Your task to perform on an android device: uninstall "DoorDash - Dasher" Image 0: 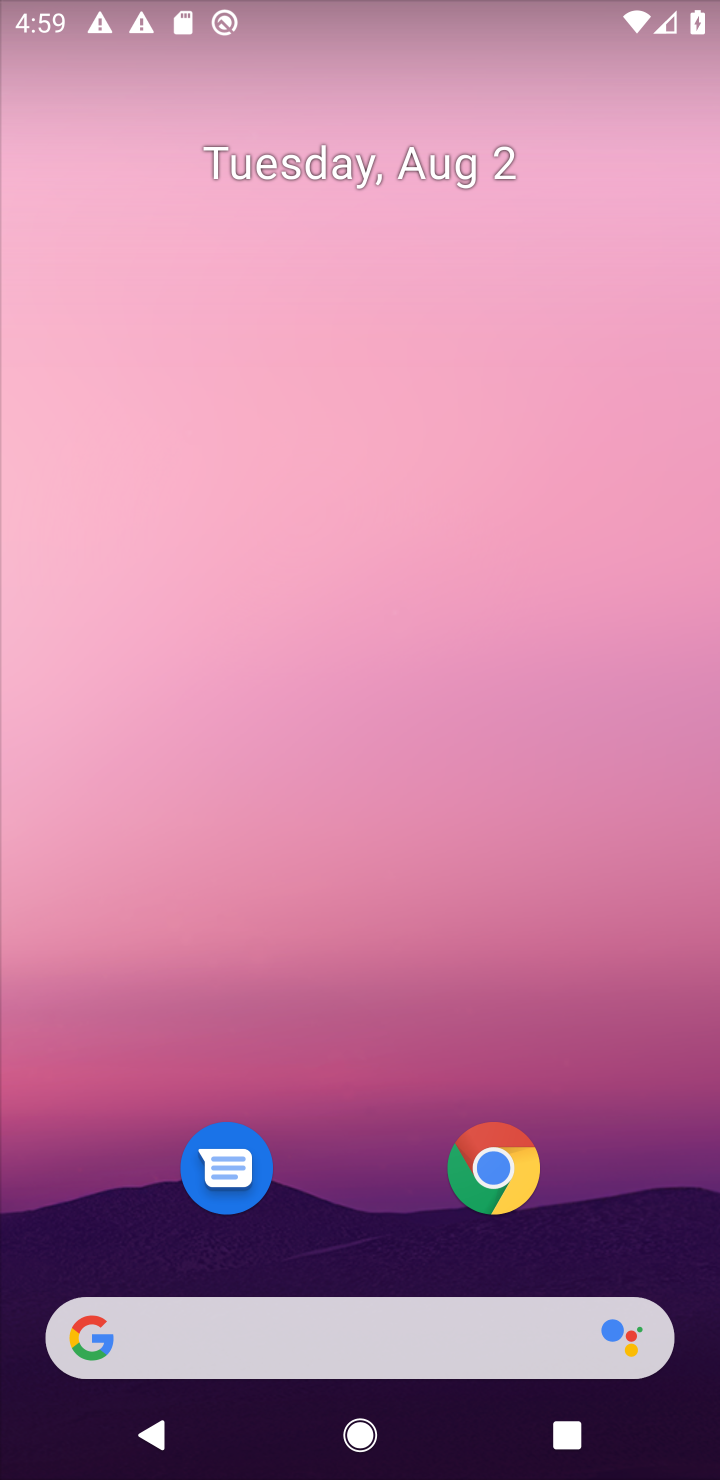
Step 0: drag from (348, 1163) to (389, 422)
Your task to perform on an android device: uninstall "DoorDash - Dasher" Image 1: 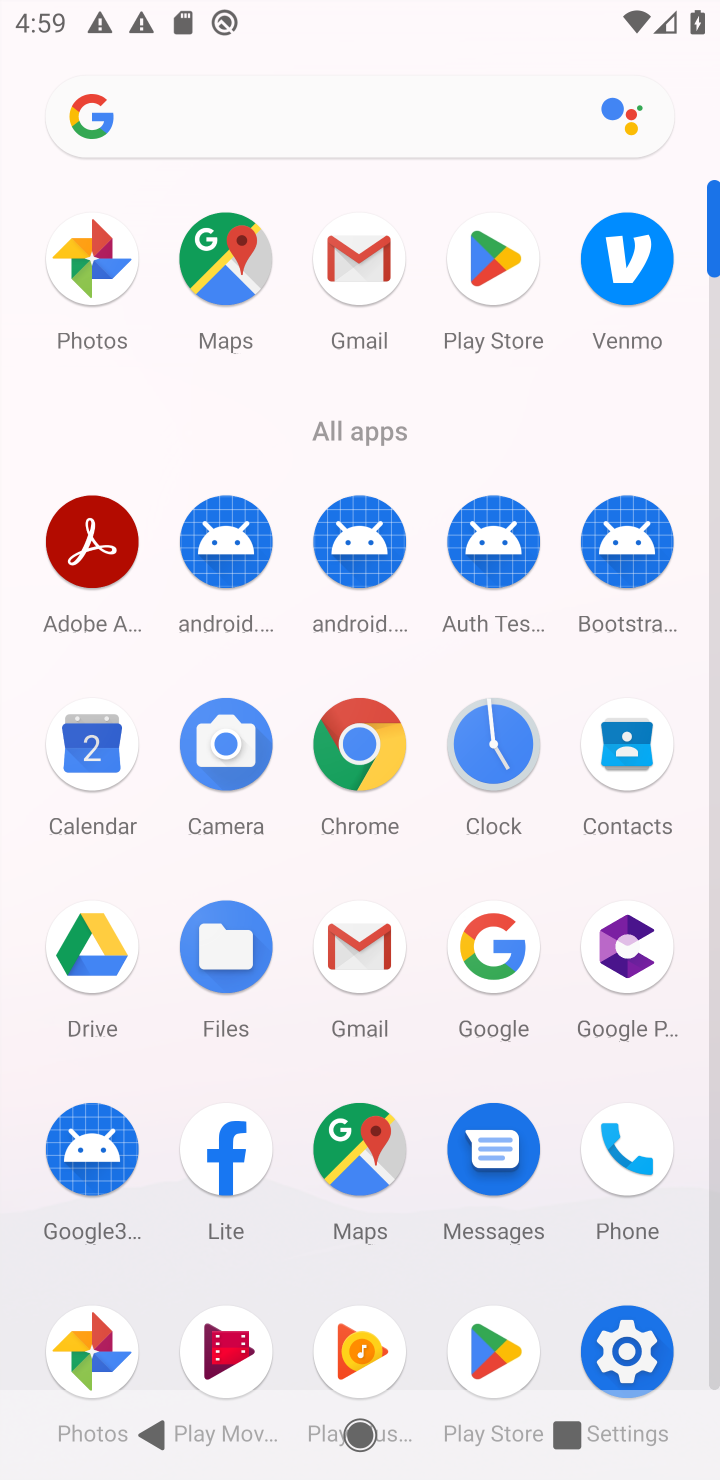
Step 1: click (499, 1346)
Your task to perform on an android device: uninstall "DoorDash - Dasher" Image 2: 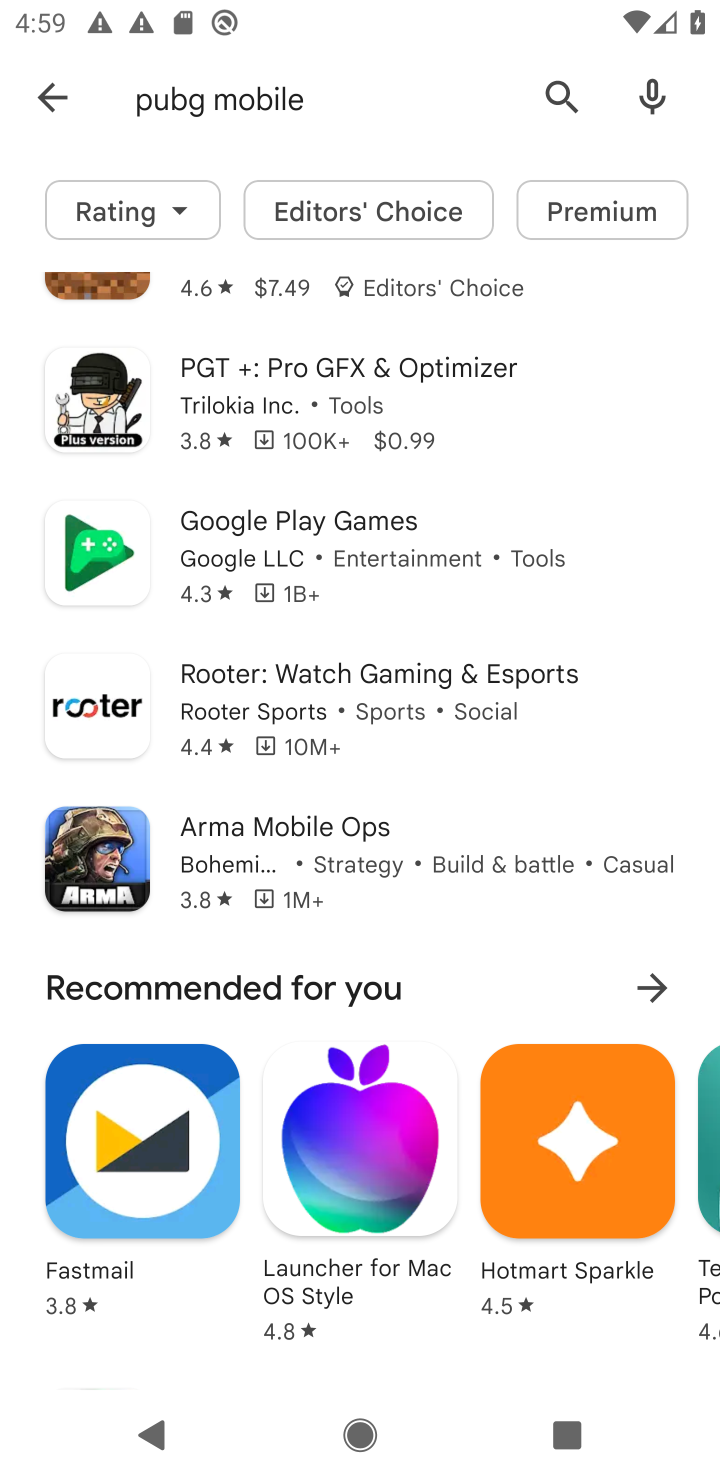
Step 2: click (267, 95)
Your task to perform on an android device: uninstall "DoorDash - Dasher" Image 3: 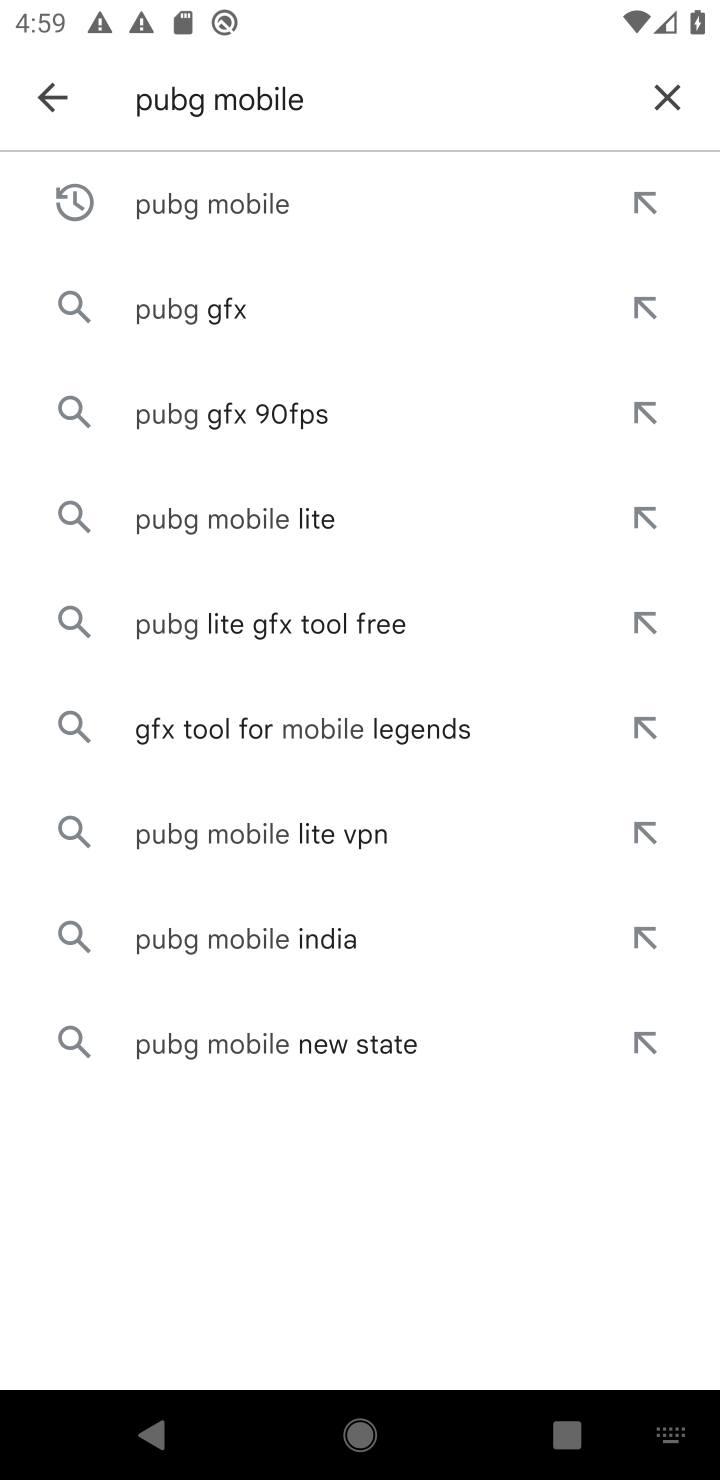
Step 3: click (649, 92)
Your task to perform on an android device: uninstall "DoorDash - Dasher" Image 4: 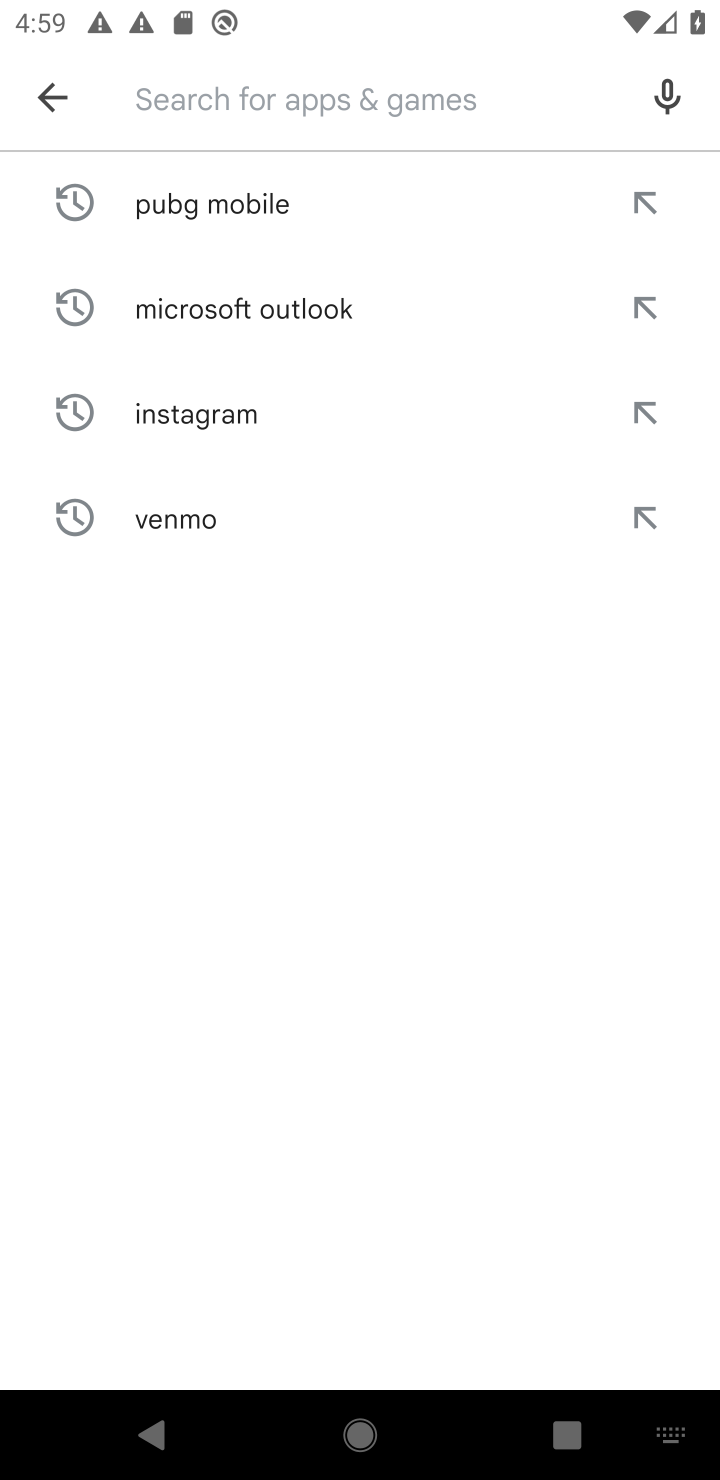
Step 4: type "doordash - dasher"
Your task to perform on an android device: uninstall "DoorDash - Dasher" Image 5: 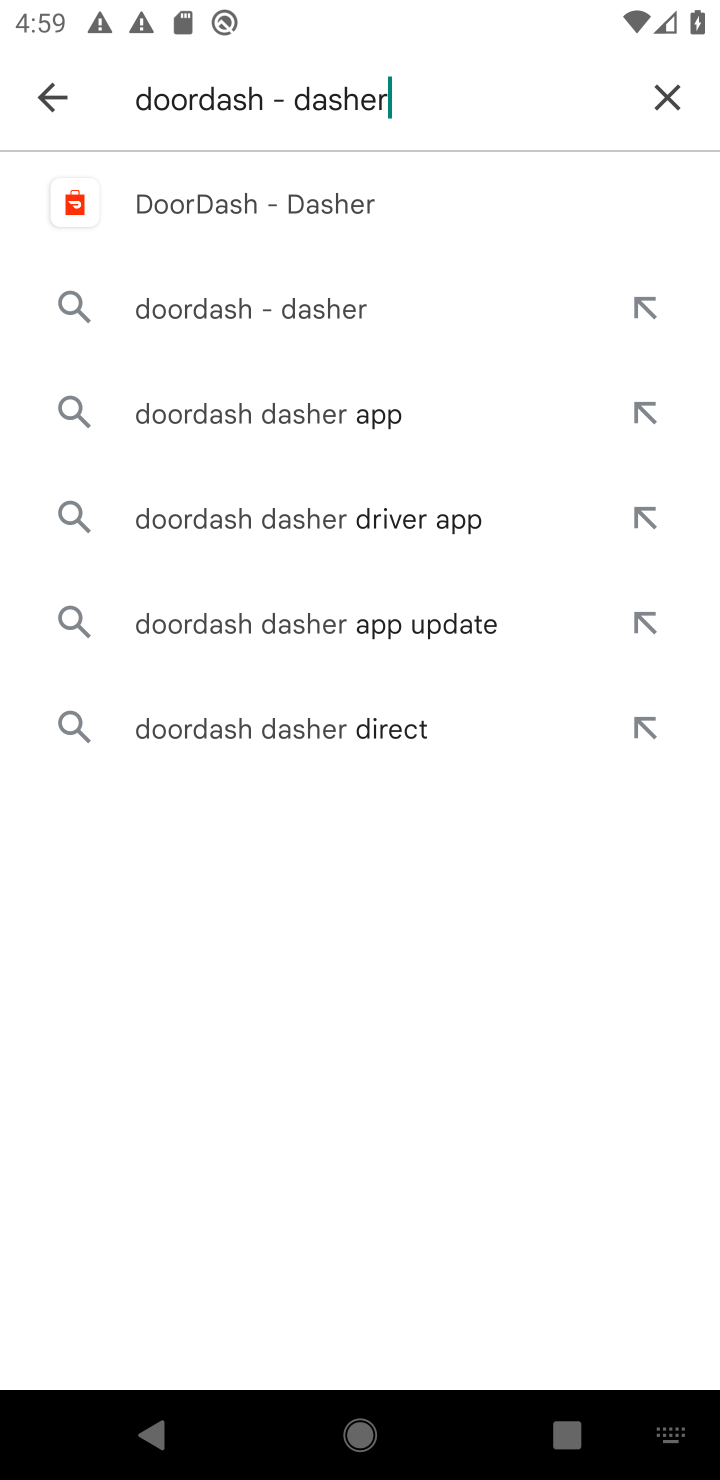
Step 5: click (349, 198)
Your task to perform on an android device: uninstall "DoorDash - Dasher" Image 6: 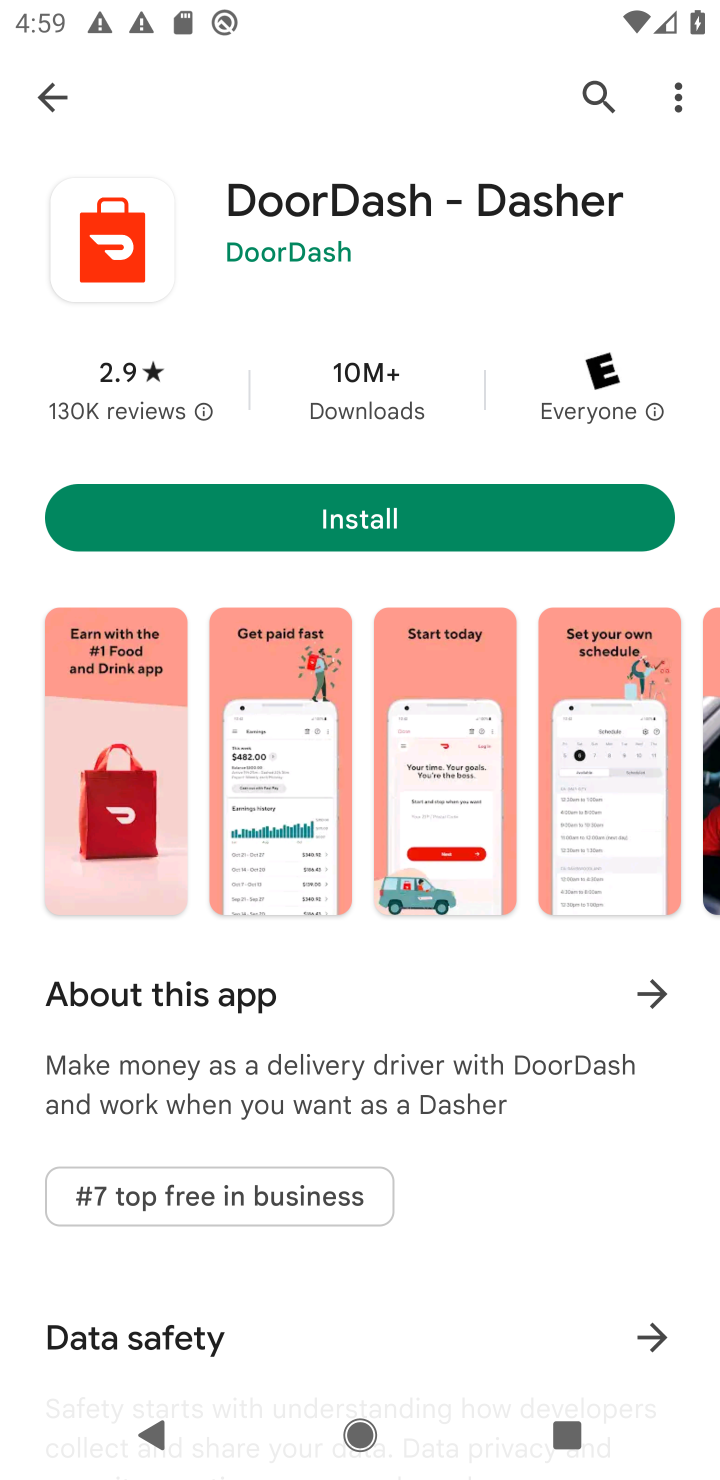
Step 6: task complete